Your task to perform on an android device: Open wifi settings Image 0: 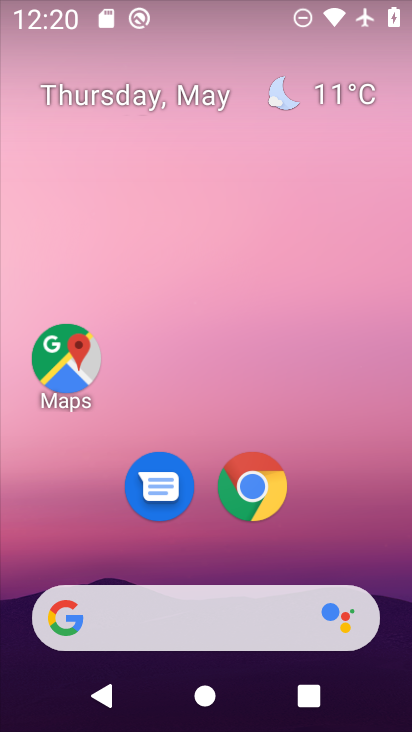
Step 0: drag from (359, 552) to (301, 44)
Your task to perform on an android device: Open wifi settings Image 1: 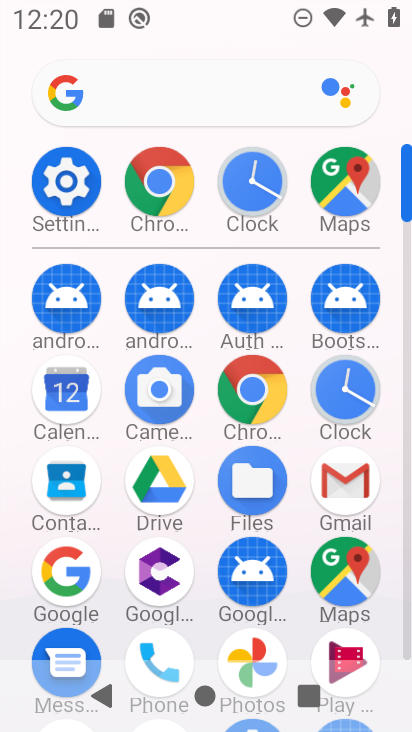
Step 1: drag from (11, 558) to (15, 267)
Your task to perform on an android device: Open wifi settings Image 2: 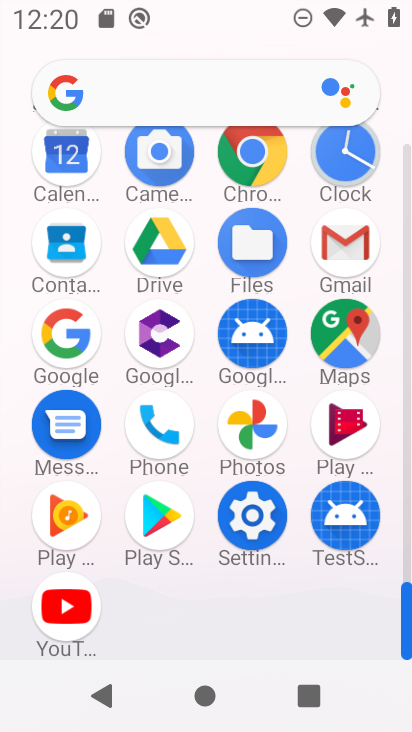
Step 2: click (248, 513)
Your task to perform on an android device: Open wifi settings Image 3: 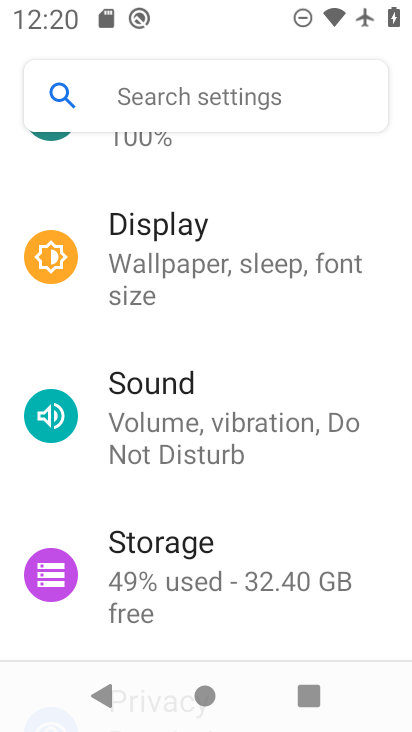
Step 3: drag from (317, 217) to (350, 560)
Your task to perform on an android device: Open wifi settings Image 4: 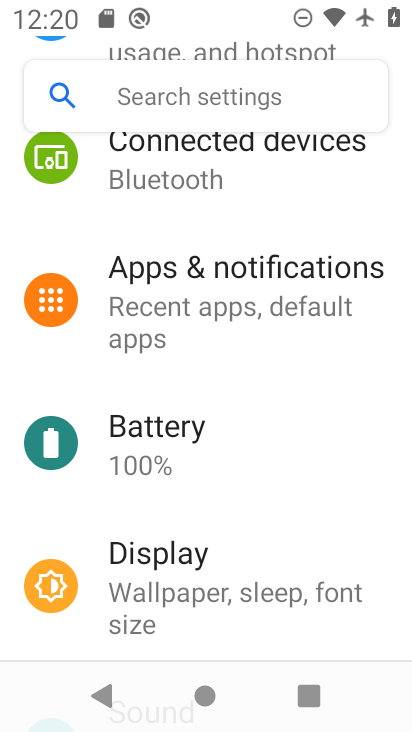
Step 4: drag from (319, 244) to (318, 580)
Your task to perform on an android device: Open wifi settings Image 5: 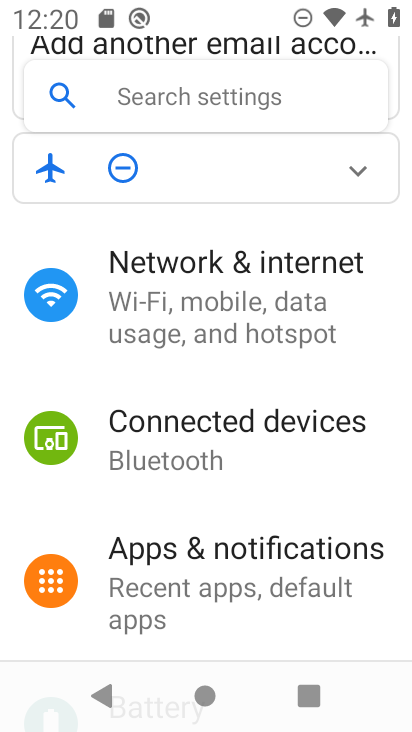
Step 5: drag from (259, 286) to (269, 545)
Your task to perform on an android device: Open wifi settings Image 6: 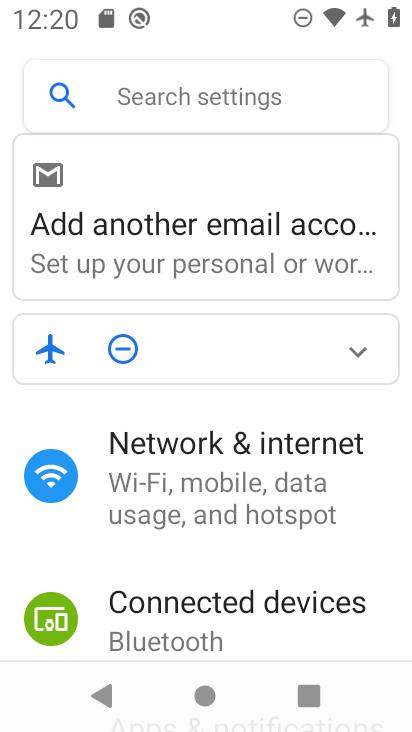
Step 6: click (190, 464)
Your task to perform on an android device: Open wifi settings Image 7: 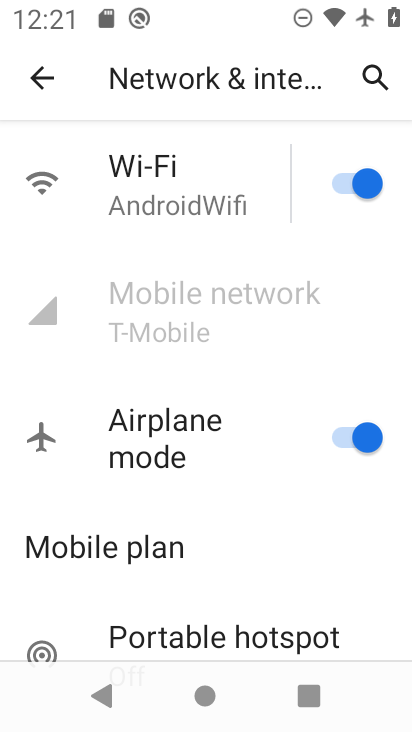
Step 7: click (166, 191)
Your task to perform on an android device: Open wifi settings Image 8: 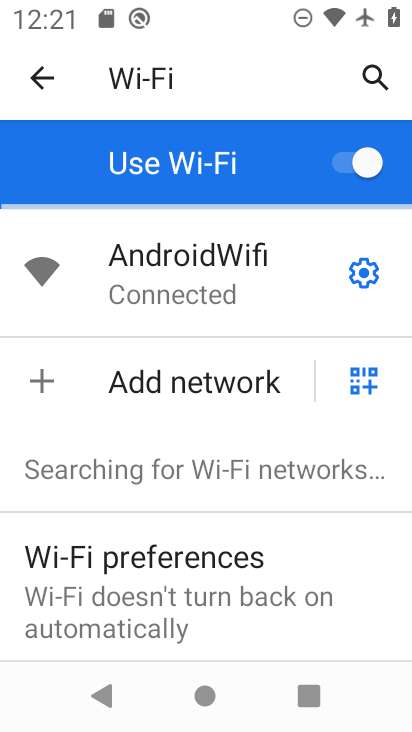
Step 8: task complete